Your task to perform on an android device: find photos in the google photos app Image 0: 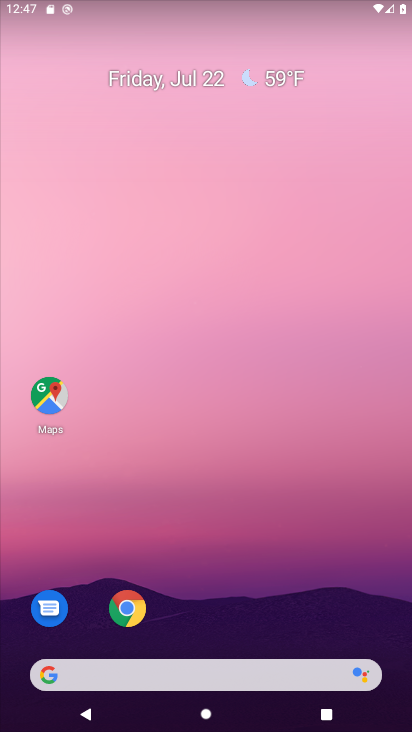
Step 0: drag from (275, 588) to (296, 15)
Your task to perform on an android device: find photos in the google photos app Image 1: 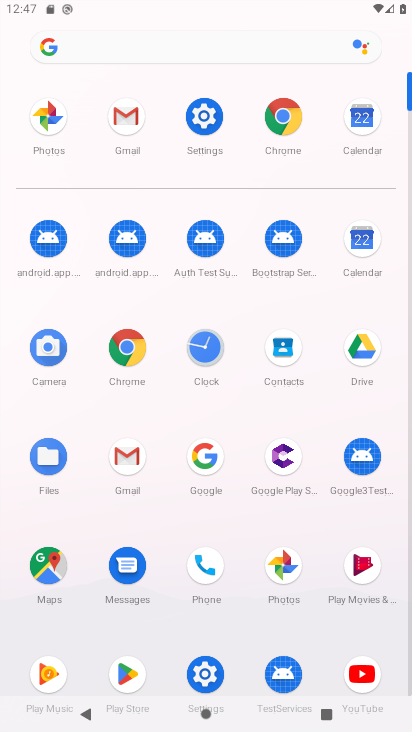
Step 1: click (283, 578)
Your task to perform on an android device: find photos in the google photos app Image 2: 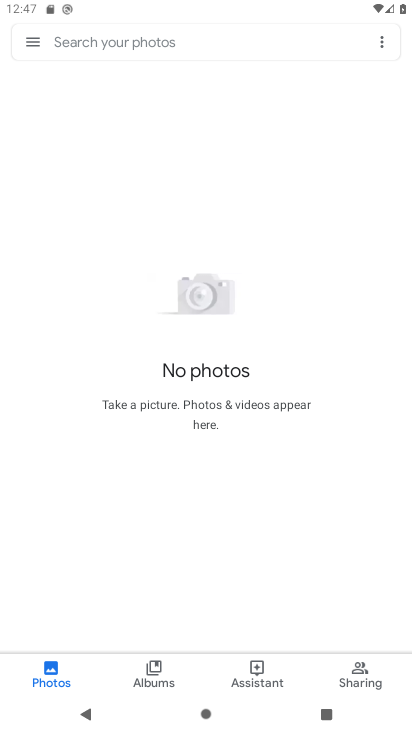
Step 2: task complete